Your task to perform on an android device: see sites visited before in the chrome app Image 0: 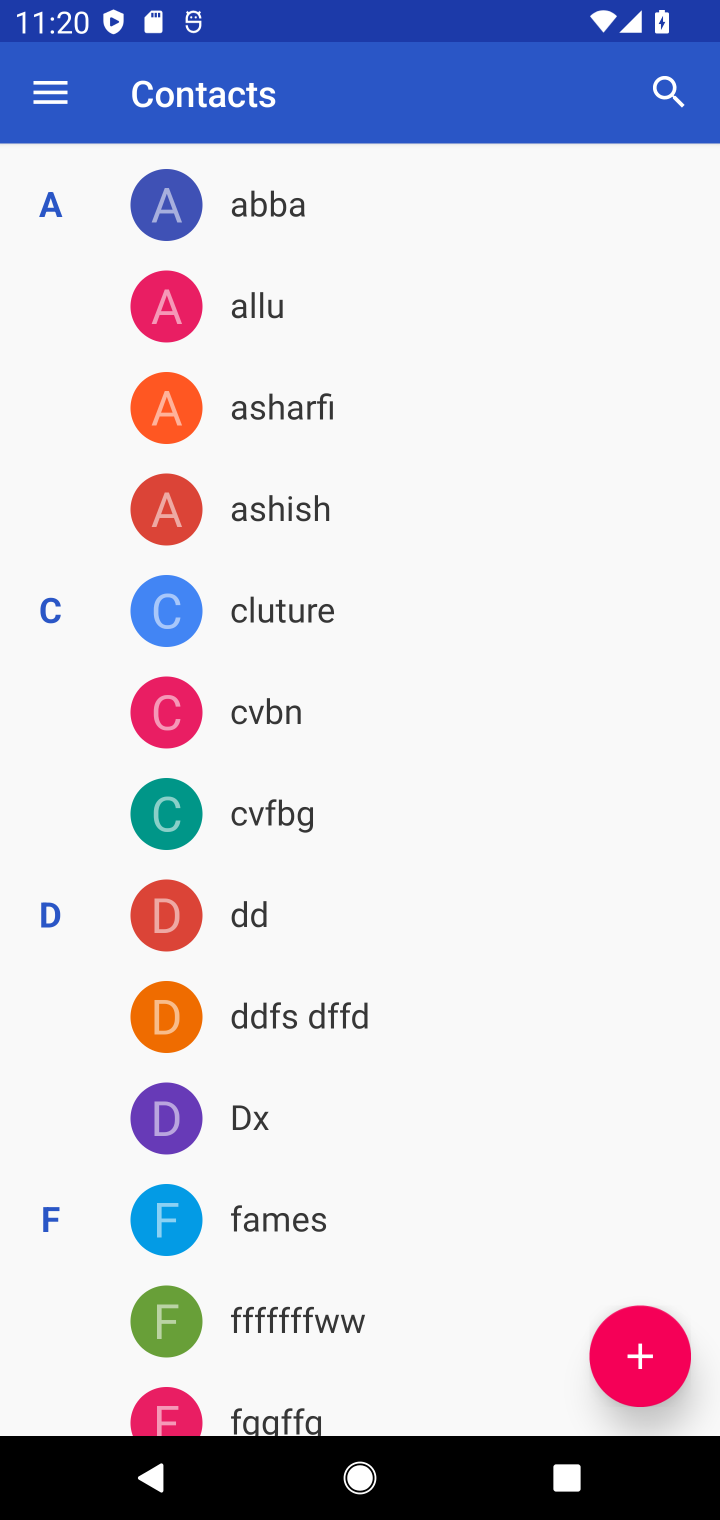
Step 0: press home button
Your task to perform on an android device: see sites visited before in the chrome app Image 1: 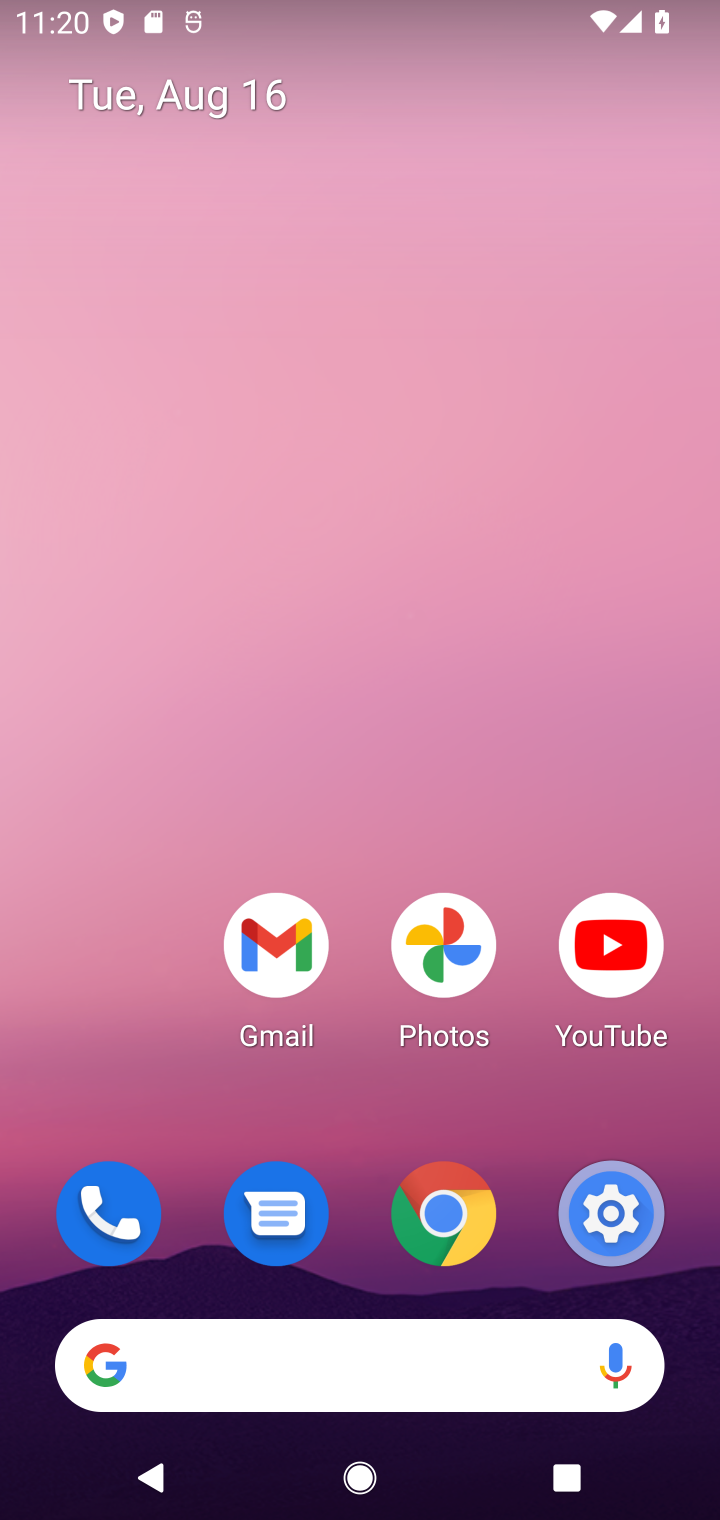
Step 1: drag from (697, 45) to (20, 271)
Your task to perform on an android device: see sites visited before in the chrome app Image 2: 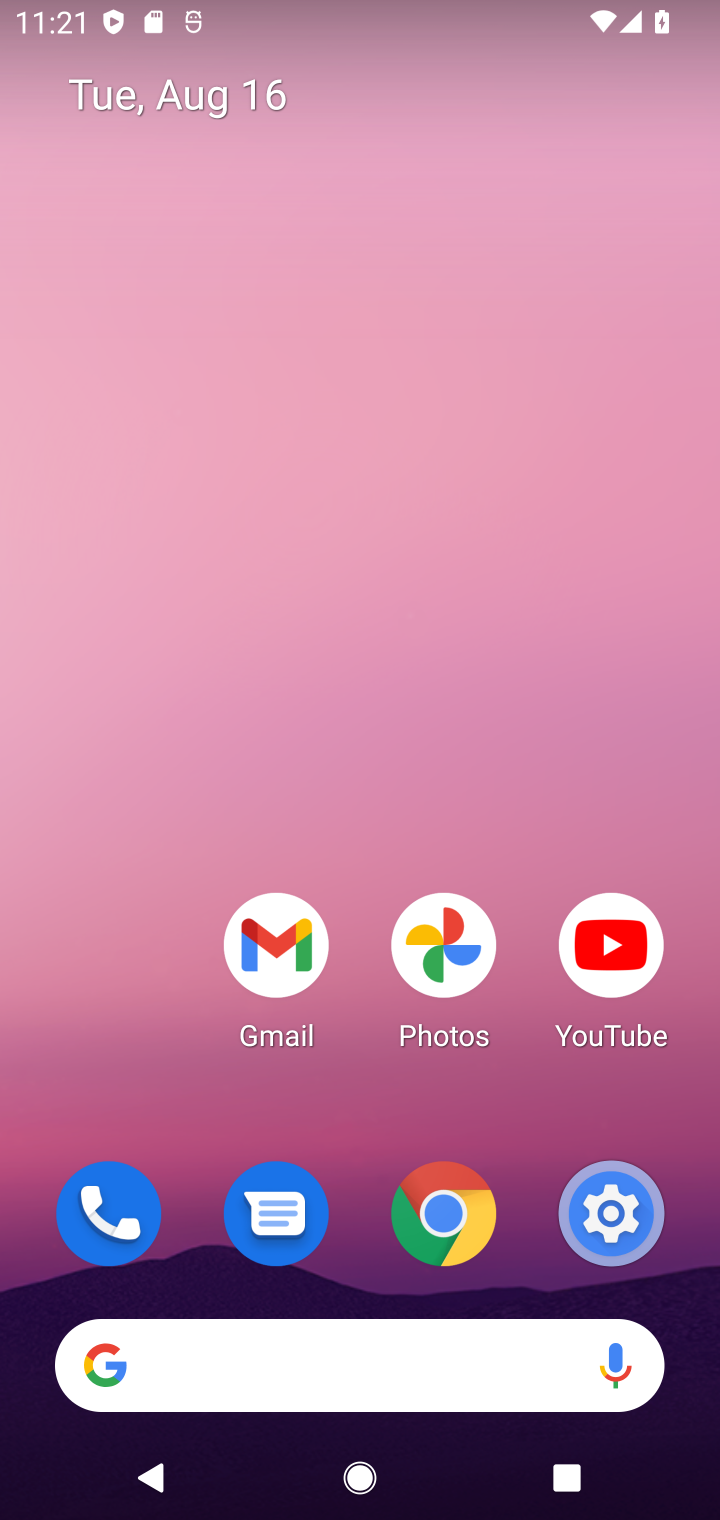
Step 2: drag from (335, 397) to (336, 0)
Your task to perform on an android device: see sites visited before in the chrome app Image 3: 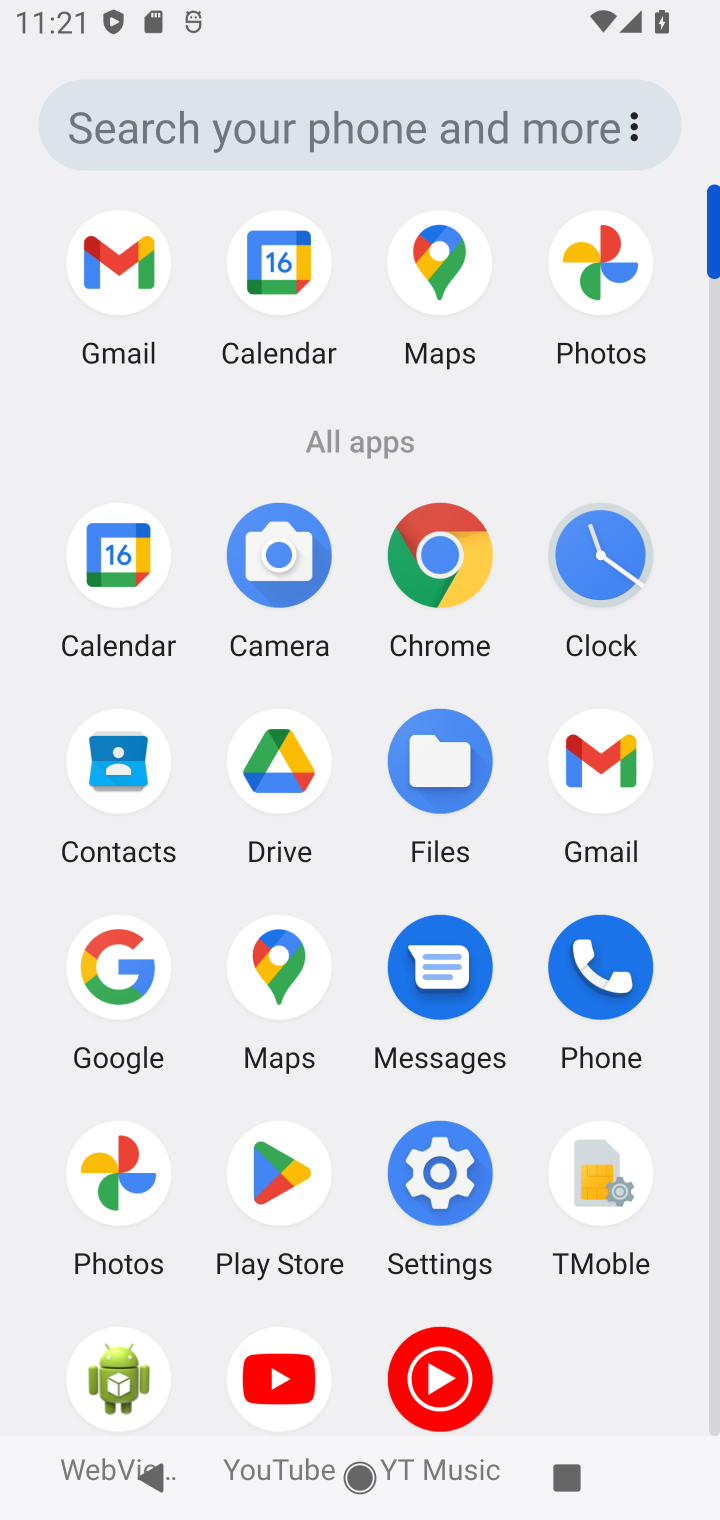
Step 3: click (446, 538)
Your task to perform on an android device: see sites visited before in the chrome app Image 4: 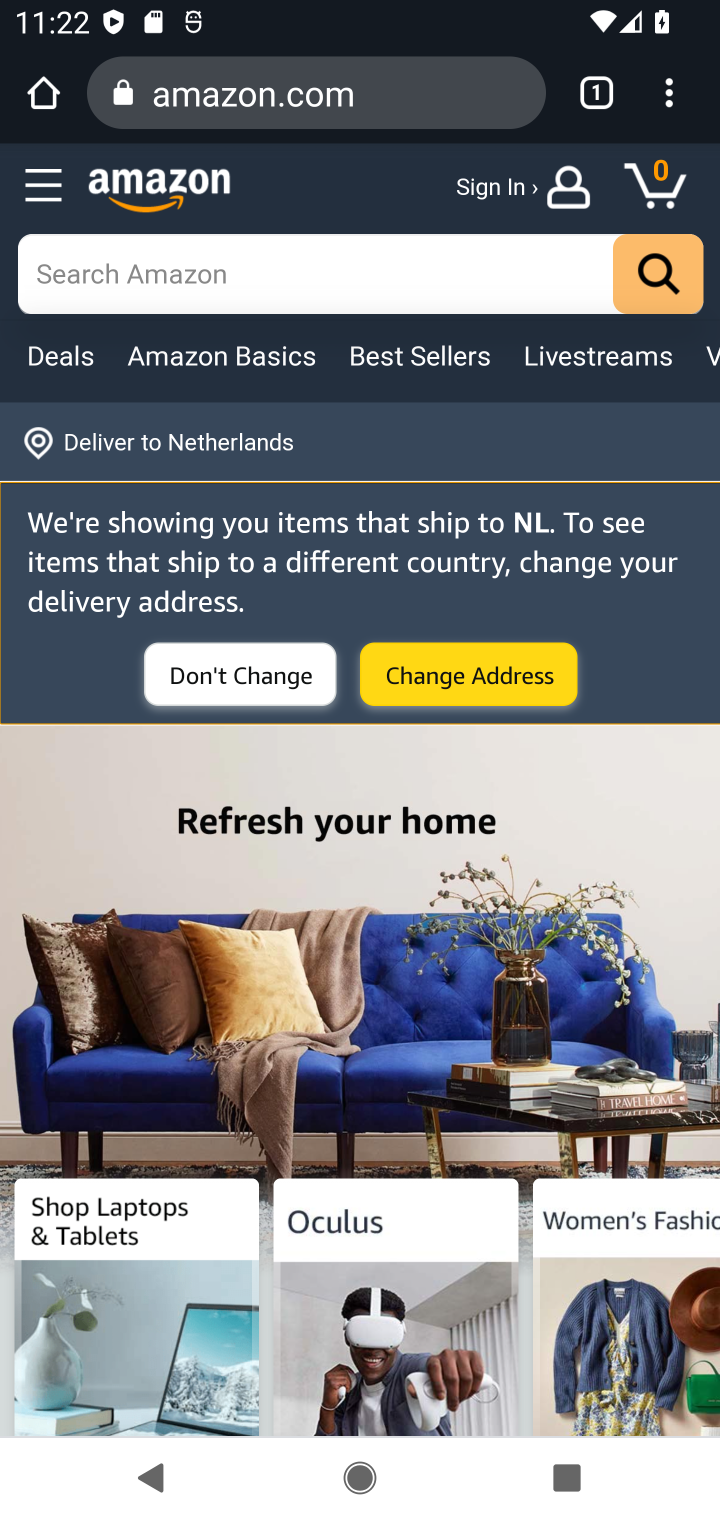
Step 4: task complete